Your task to perform on an android device: Open Yahoo.com Image 0: 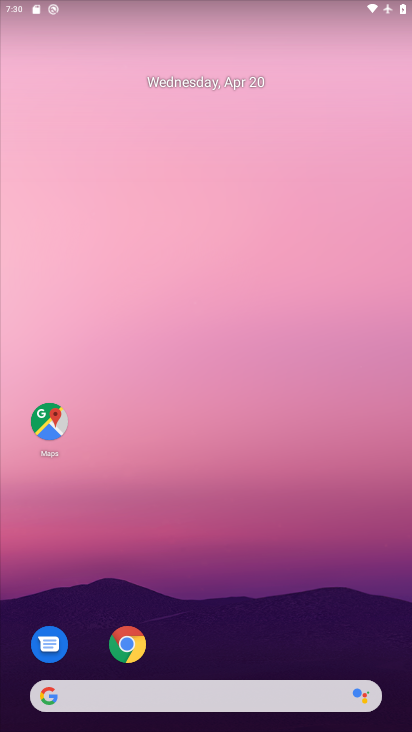
Step 0: drag from (326, 625) to (245, 71)
Your task to perform on an android device: Open Yahoo.com Image 1: 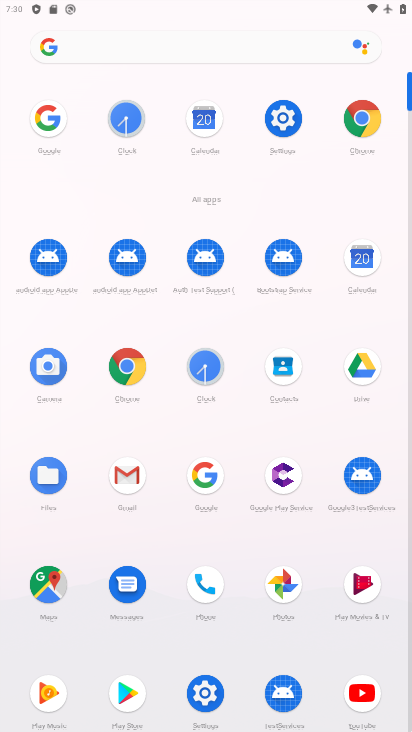
Step 1: click (122, 362)
Your task to perform on an android device: Open Yahoo.com Image 2: 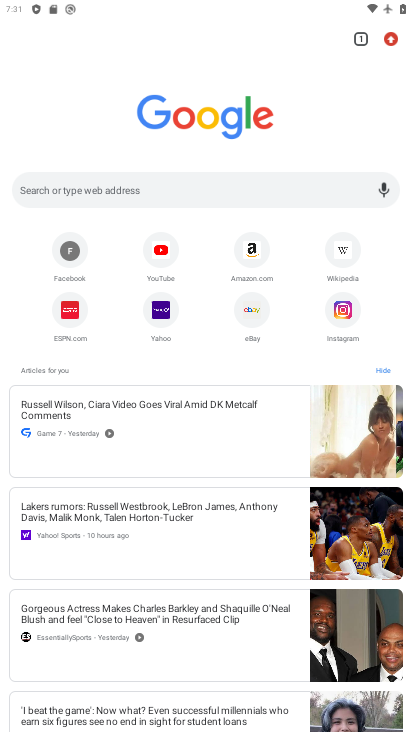
Step 2: click (108, 191)
Your task to perform on an android device: Open Yahoo.com Image 3: 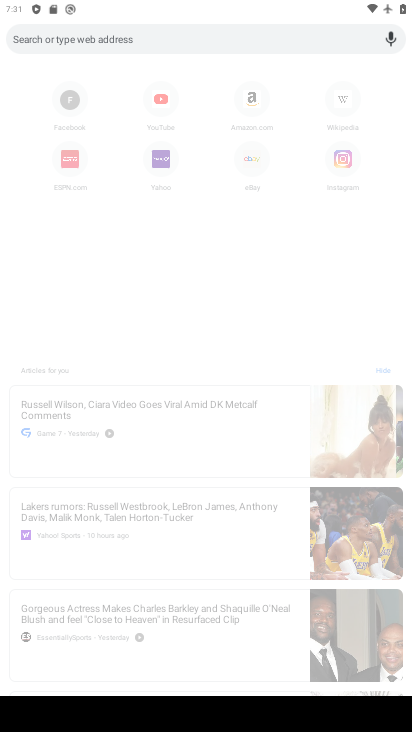
Step 3: press back button
Your task to perform on an android device: Open Yahoo.com Image 4: 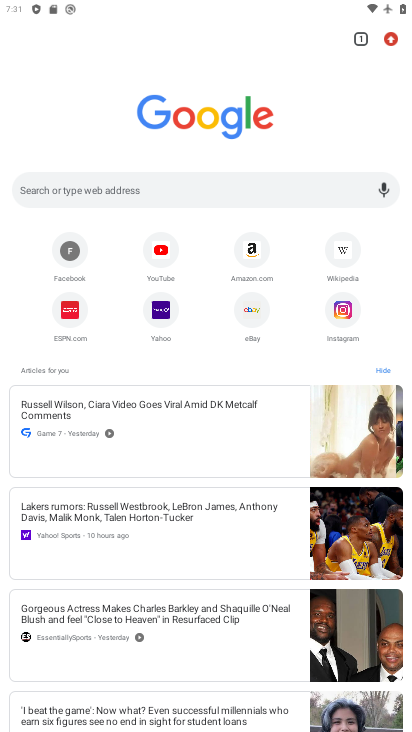
Step 4: click (146, 291)
Your task to perform on an android device: Open Yahoo.com Image 5: 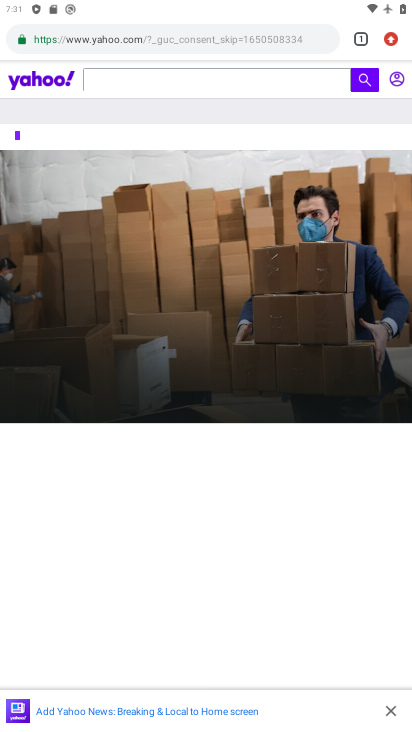
Step 5: task complete